Your task to perform on an android device: What's the weather? Image 0: 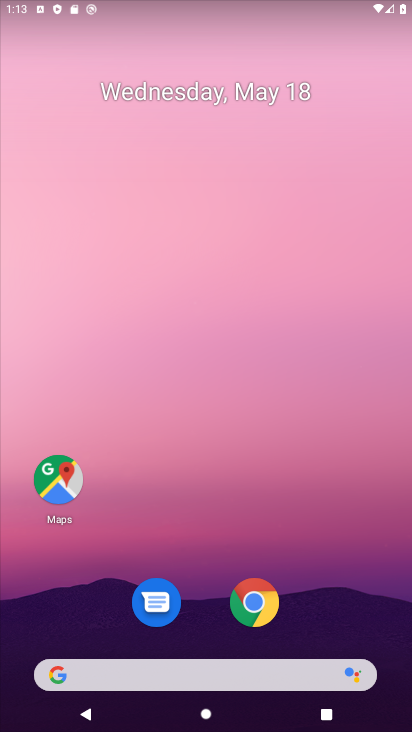
Step 0: click (298, 674)
Your task to perform on an android device: What's the weather? Image 1: 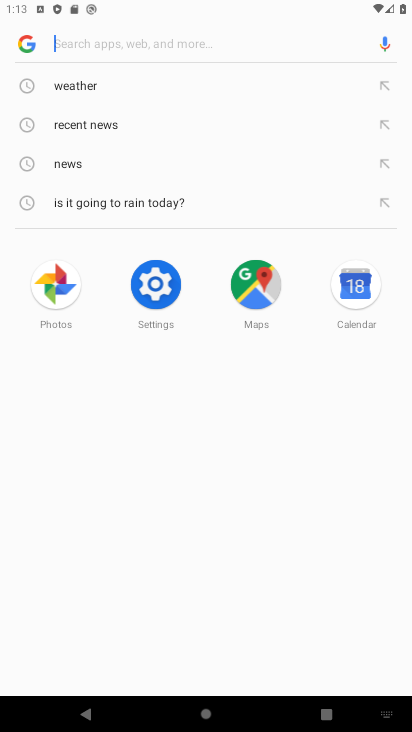
Step 1: click (124, 94)
Your task to perform on an android device: What's the weather? Image 2: 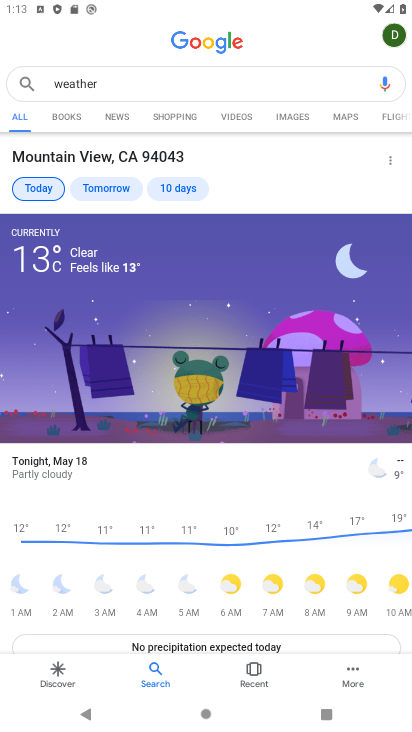
Step 2: task complete